Your task to perform on an android device: create a new album in the google photos Image 0: 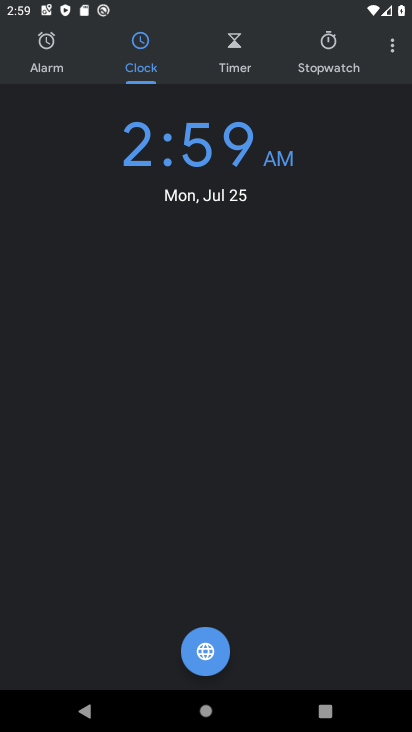
Step 0: press home button
Your task to perform on an android device: create a new album in the google photos Image 1: 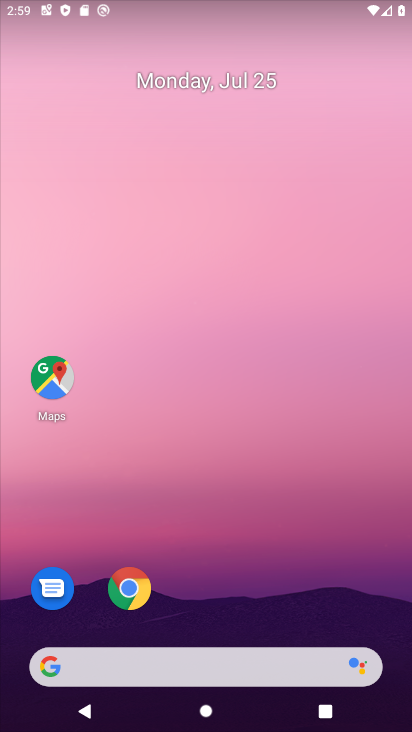
Step 1: drag from (228, 590) to (207, 97)
Your task to perform on an android device: create a new album in the google photos Image 2: 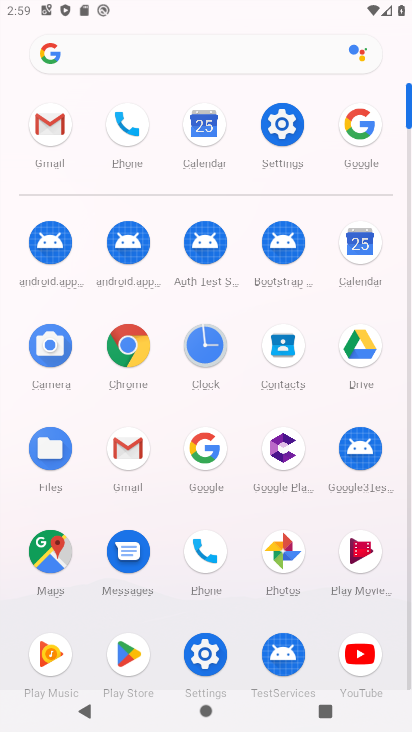
Step 2: click (277, 569)
Your task to perform on an android device: create a new album in the google photos Image 3: 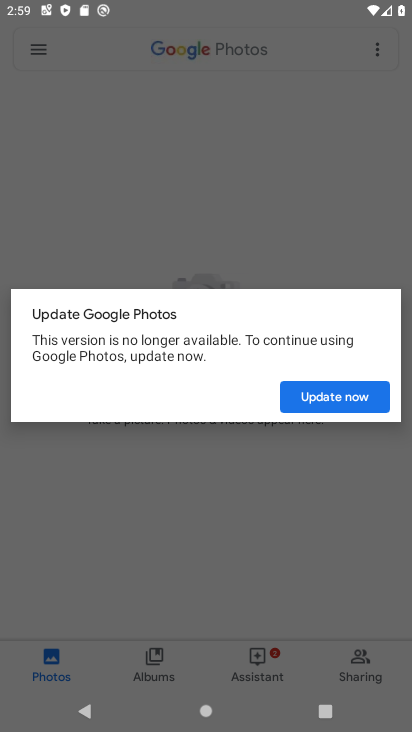
Step 3: click (301, 407)
Your task to perform on an android device: create a new album in the google photos Image 4: 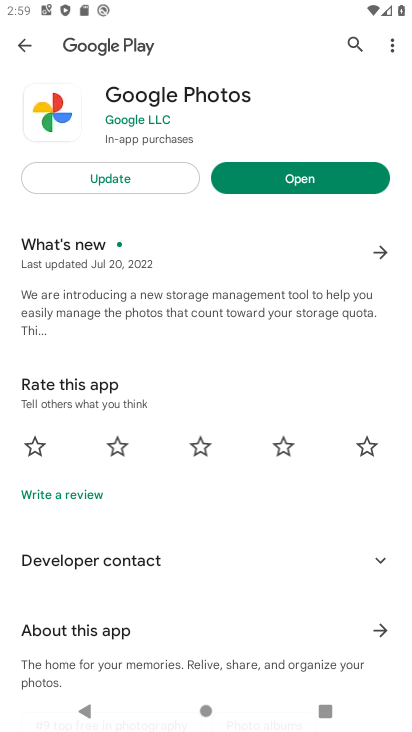
Step 4: click (278, 181)
Your task to perform on an android device: create a new album in the google photos Image 5: 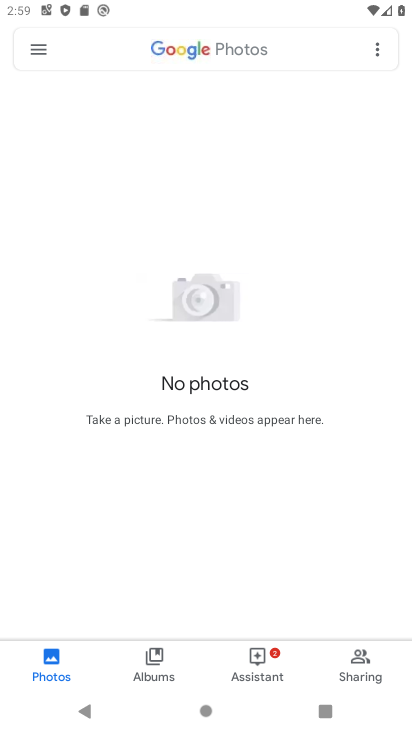
Step 5: click (366, 39)
Your task to perform on an android device: create a new album in the google photos Image 6: 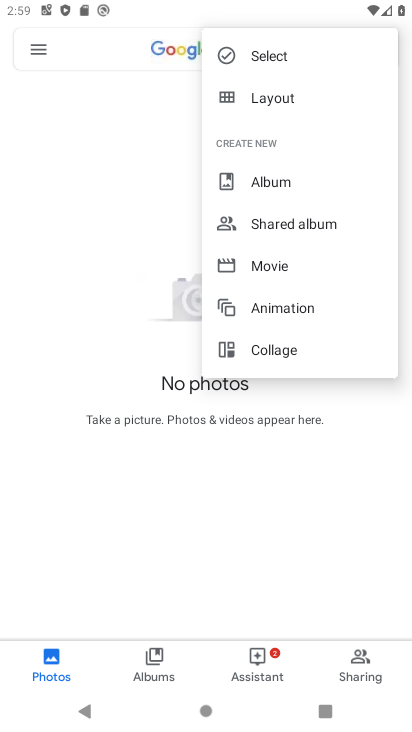
Step 6: click (311, 178)
Your task to perform on an android device: create a new album in the google photos Image 7: 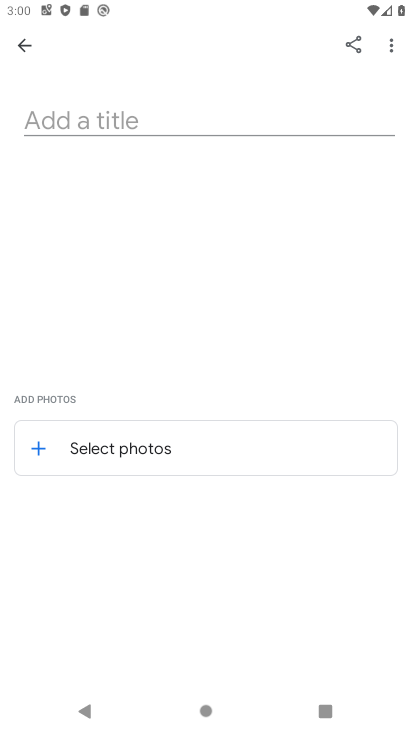
Step 7: click (151, 130)
Your task to perform on an android device: create a new album in the google photos Image 8: 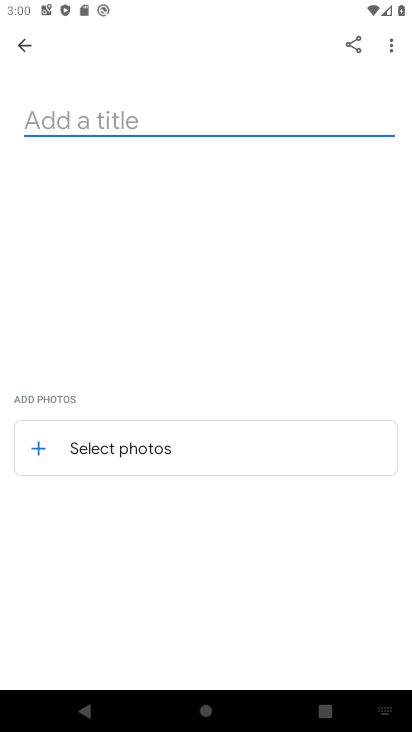
Step 8: type "nffghfhf"
Your task to perform on an android device: create a new album in the google photos Image 9: 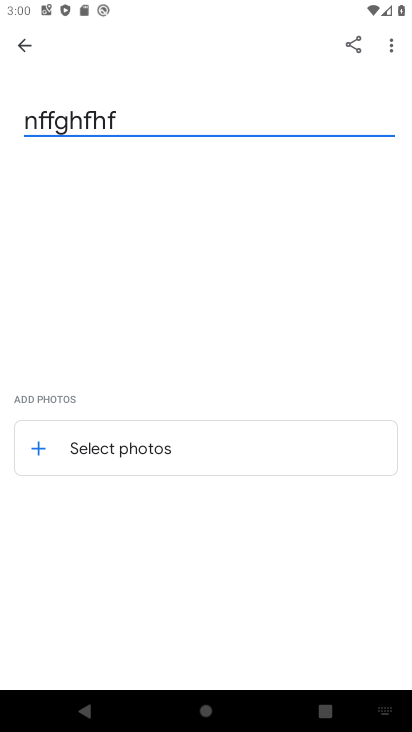
Step 9: click (39, 447)
Your task to perform on an android device: create a new album in the google photos Image 10: 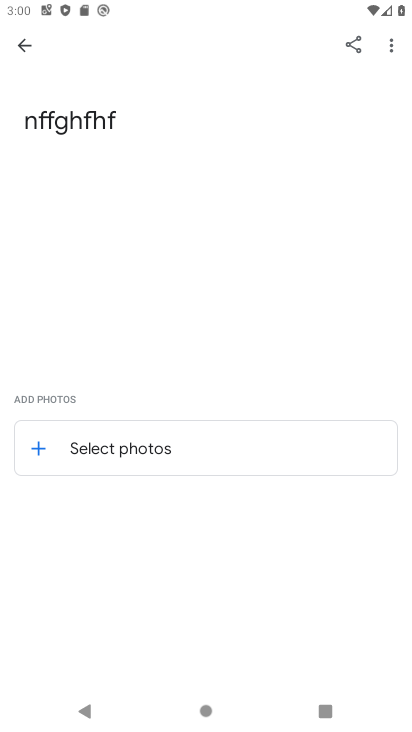
Step 10: click (43, 460)
Your task to perform on an android device: create a new album in the google photos Image 11: 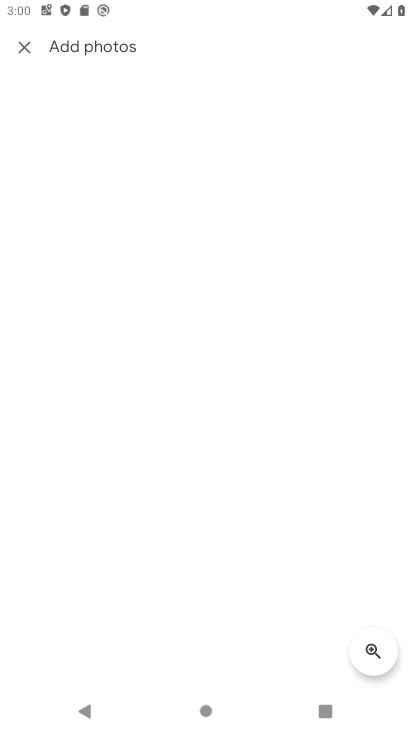
Step 11: task complete